Your task to perform on an android device: add a contact in the contacts app Image 0: 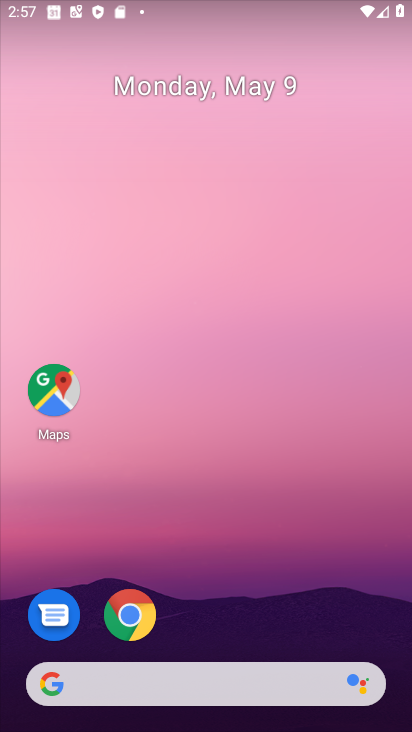
Step 0: drag from (273, 278) to (252, 166)
Your task to perform on an android device: add a contact in the contacts app Image 1: 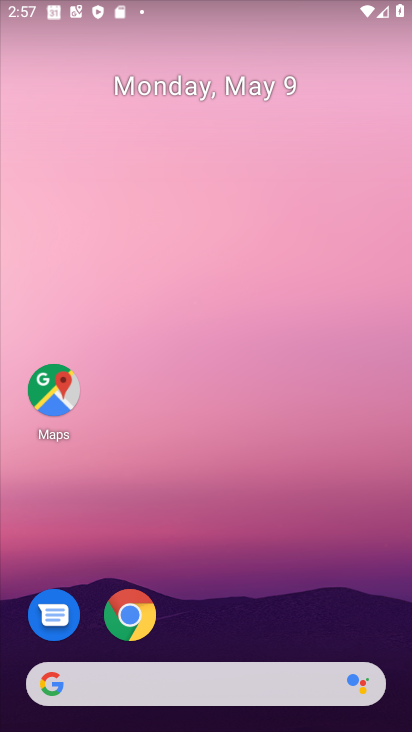
Step 1: drag from (266, 583) to (250, 292)
Your task to perform on an android device: add a contact in the contacts app Image 2: 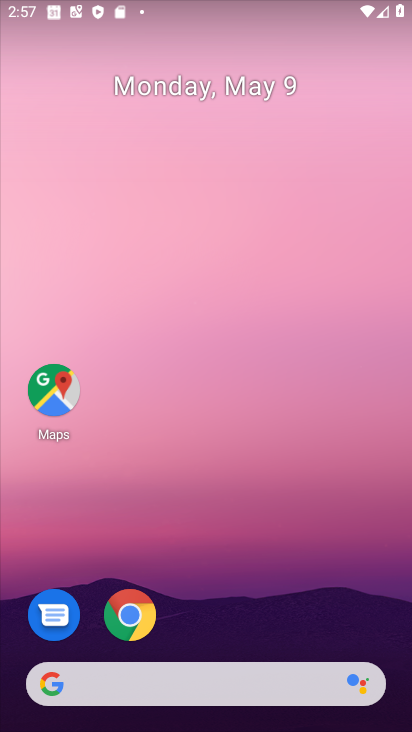
Step 2: drag from (247, 628) to (243, 309)
Your task to perform on an android device: add a contact in the contacts app Image 3: 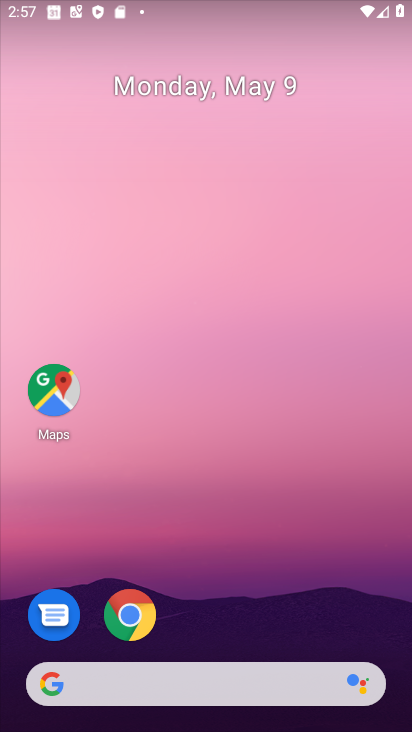
Step 3: drag from (222, 667) to (228, 206)
Your task to perform on an android device: add a contact in the contacts app Image 4: 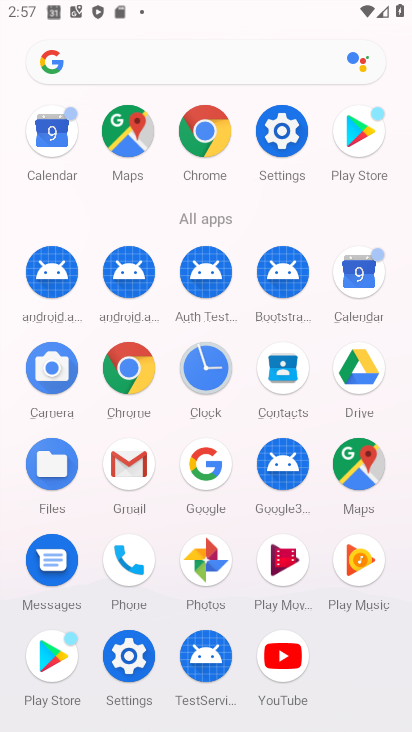
Step 4: click (132, 555)
Your task to perform on an android device: add a contact in the contacts app Image 5: 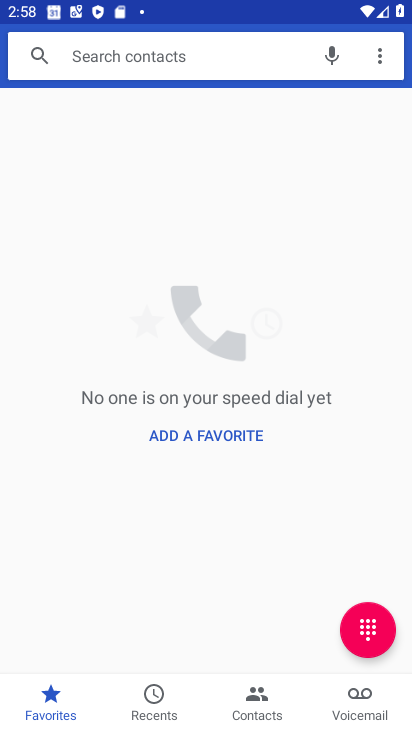
Step 5: click (160, 432)
Your task to perform on an android device: add a contact in the contacts app Image 6: 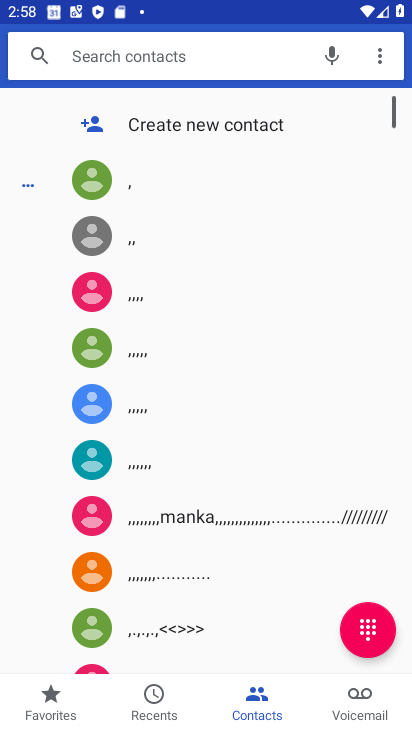
Step 6: click (163, 119)
Your task to perform on an android device: add a contact in the contacts app Image 7: 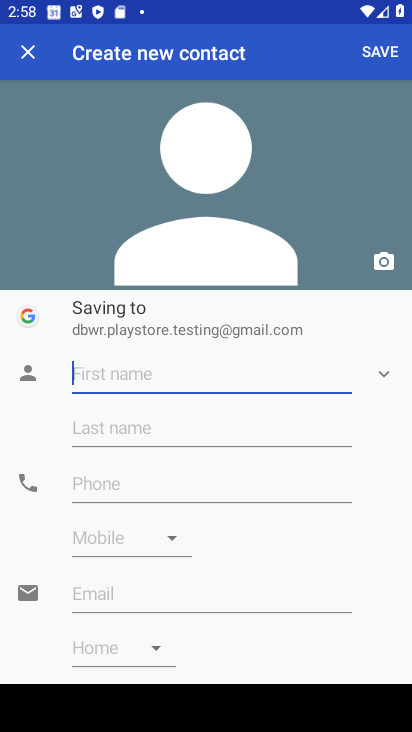
Step 7: type "kkkkkkkkkkkkkkkkkkg"
Your task to perform on an android device: add a contact in the contacts app Image 8: 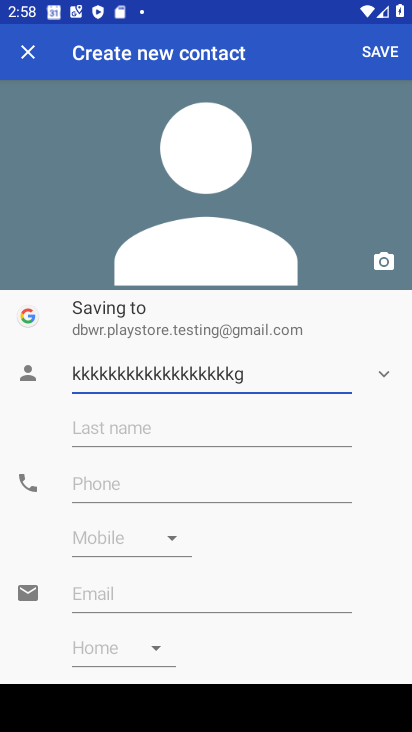
Step 8: click (198, 484)
Your task to perform on an android device: add a contact in the contacts app Image 9: 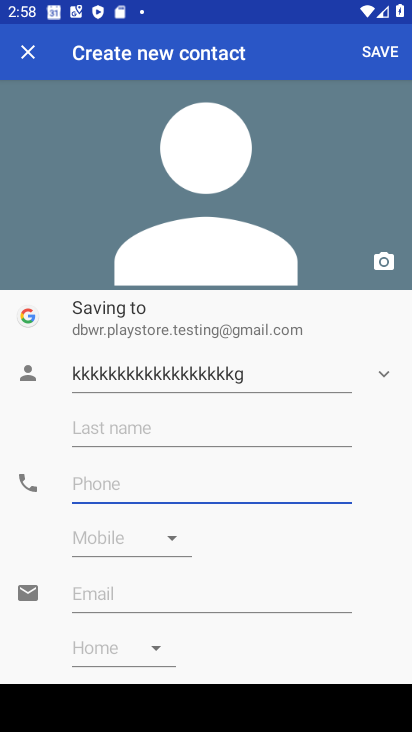
Step 9: type "000000000000000006"
Your task to perform on an android device: add a contact in the contacts app Image 10: 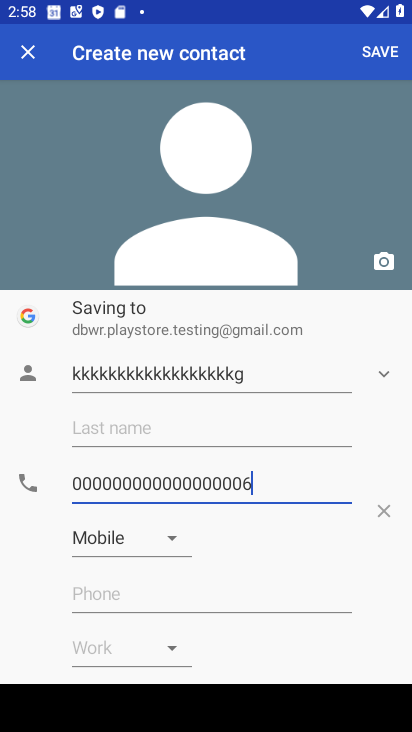
Step 10: click (362, 47)
Your task to perform on an android device: add a contact in the contacts app Image 11: 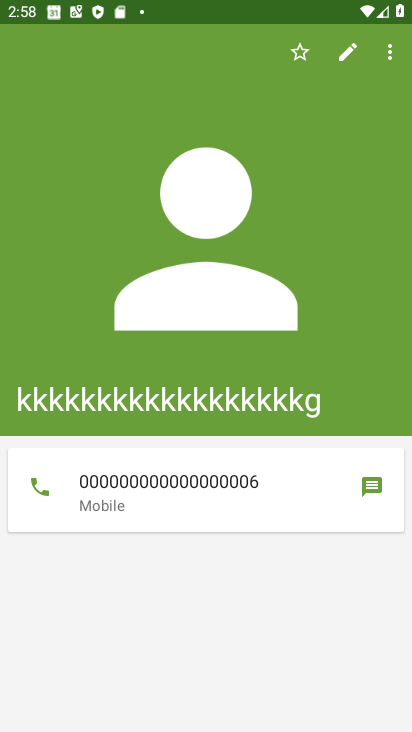
Step 11: task complete